Your task to perform on an android device: Search for "bose soundlink mini" on amazon.com, select the first entry, add it to the cart, then select checkout. Image 0: 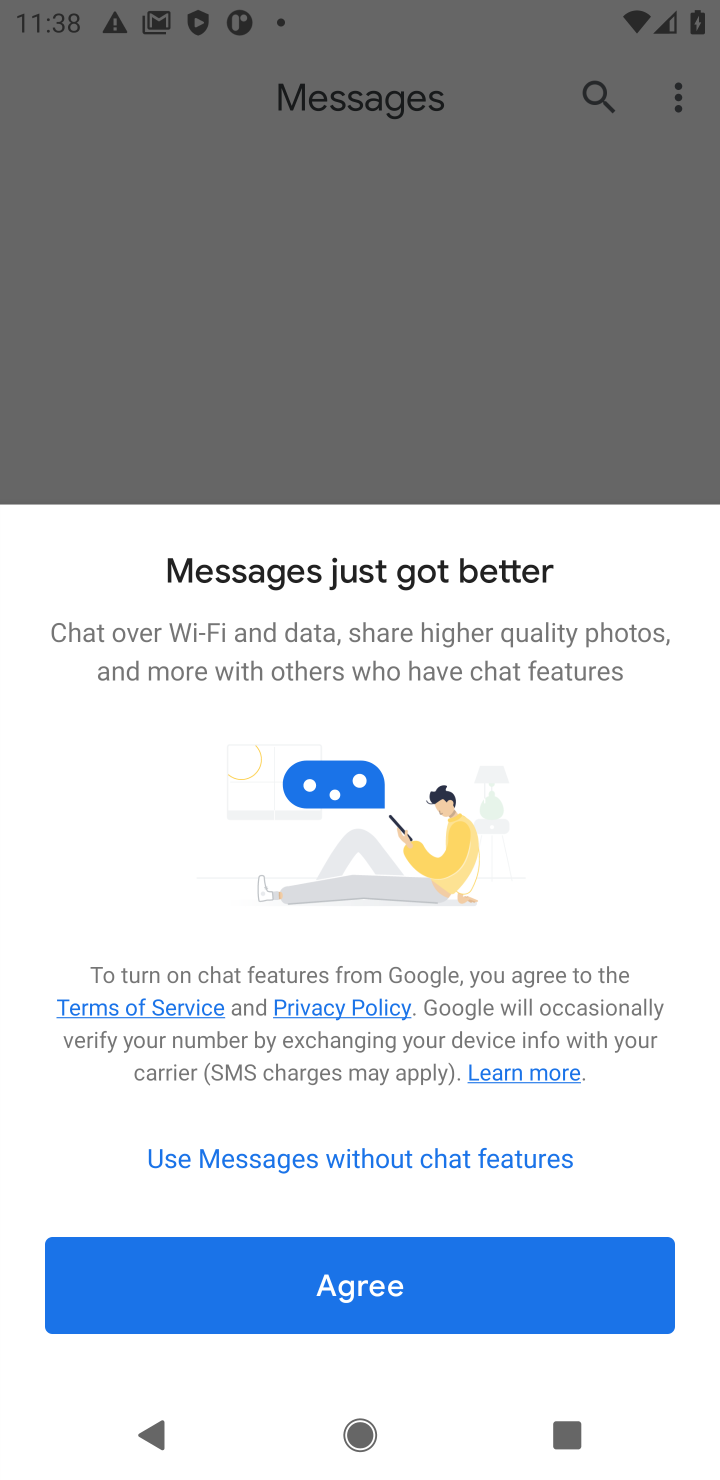
Step 0: press home button
Your task to perform on an android device: Search for "bose soundlink mini" on amazon.com, select the first entry, add it to the cart, then select checkout. Image 1: 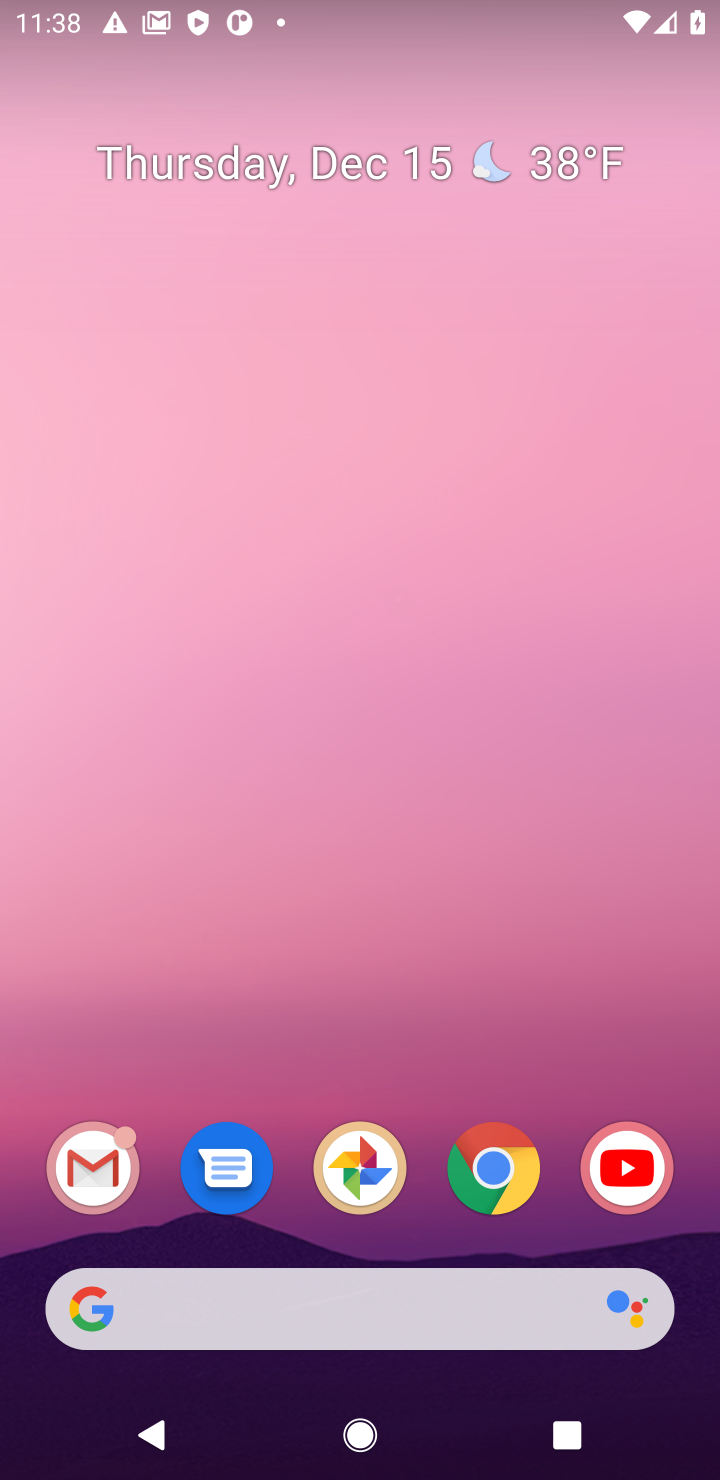
Step 1: click (483, 1169)
Your task to perform on an android device: Search for "bose soundlink mini" on amazon.com, select the first entry, add it to the cart, then select checkout. Image 2: 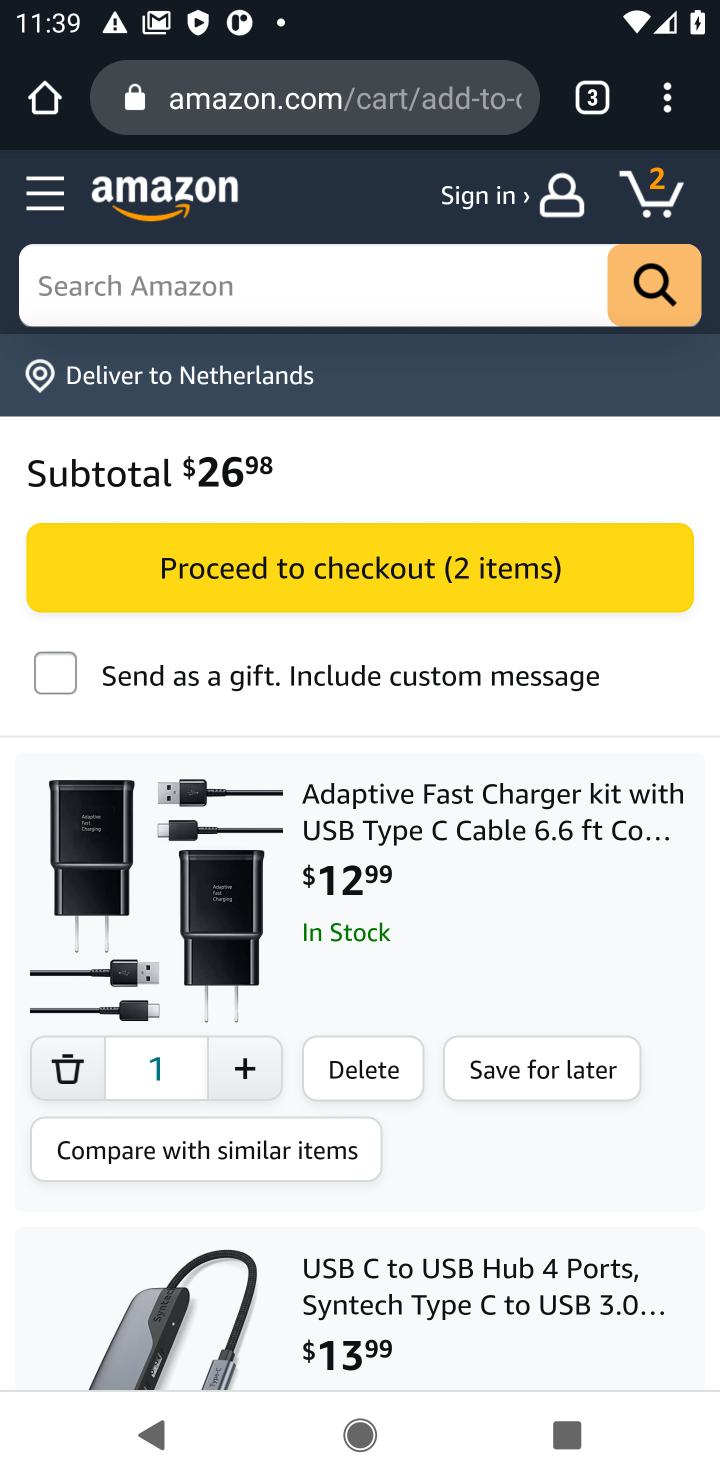
Step 2: click (118, 267)
Your task to perform on an android device: Search for "bose soundlink mini" on amazon.com, select the first entry, add it to the cart, then select checkout. Image 3: 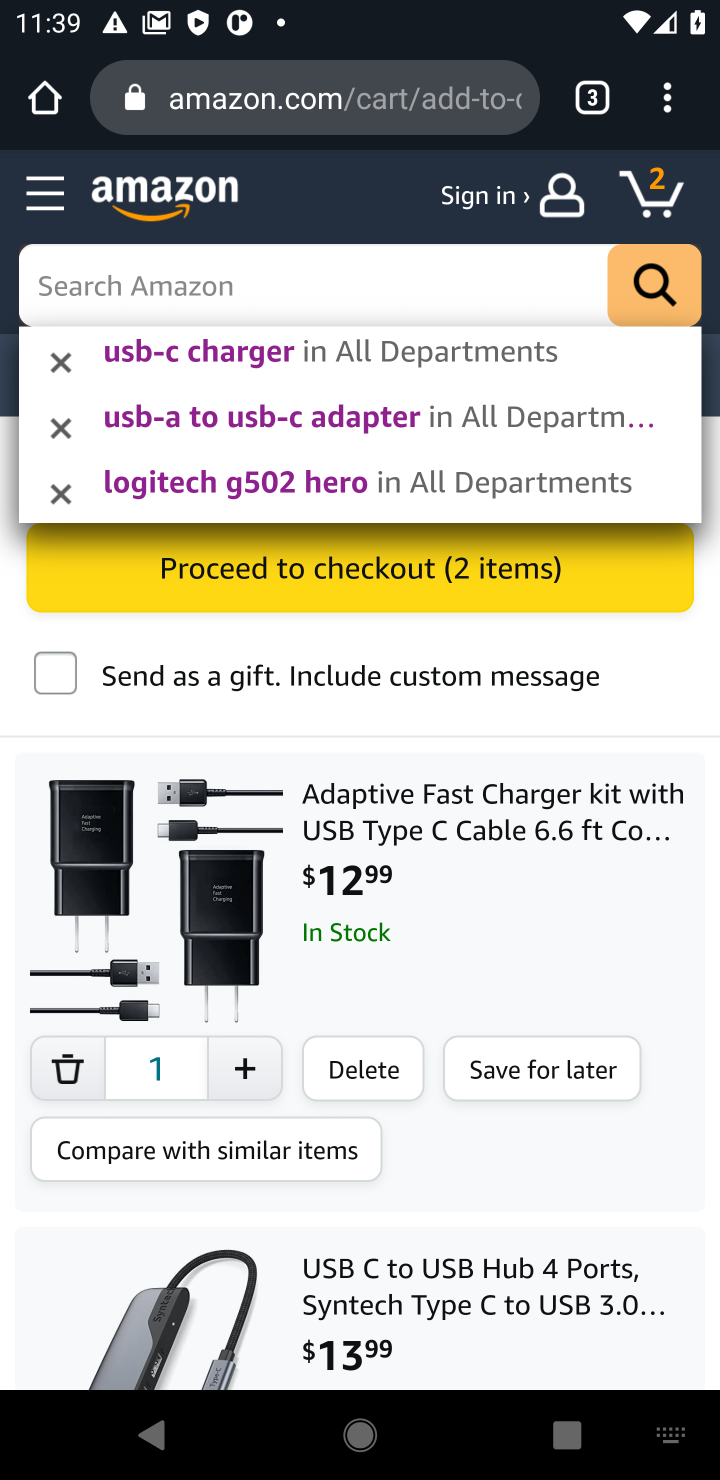
Step 3: type "bose soundlink mini"
Your task to perform on an android device: Search for "bose soundlink mini" on amazon.com, select the first entry, add it to the cart, then select checkout. Image 4: 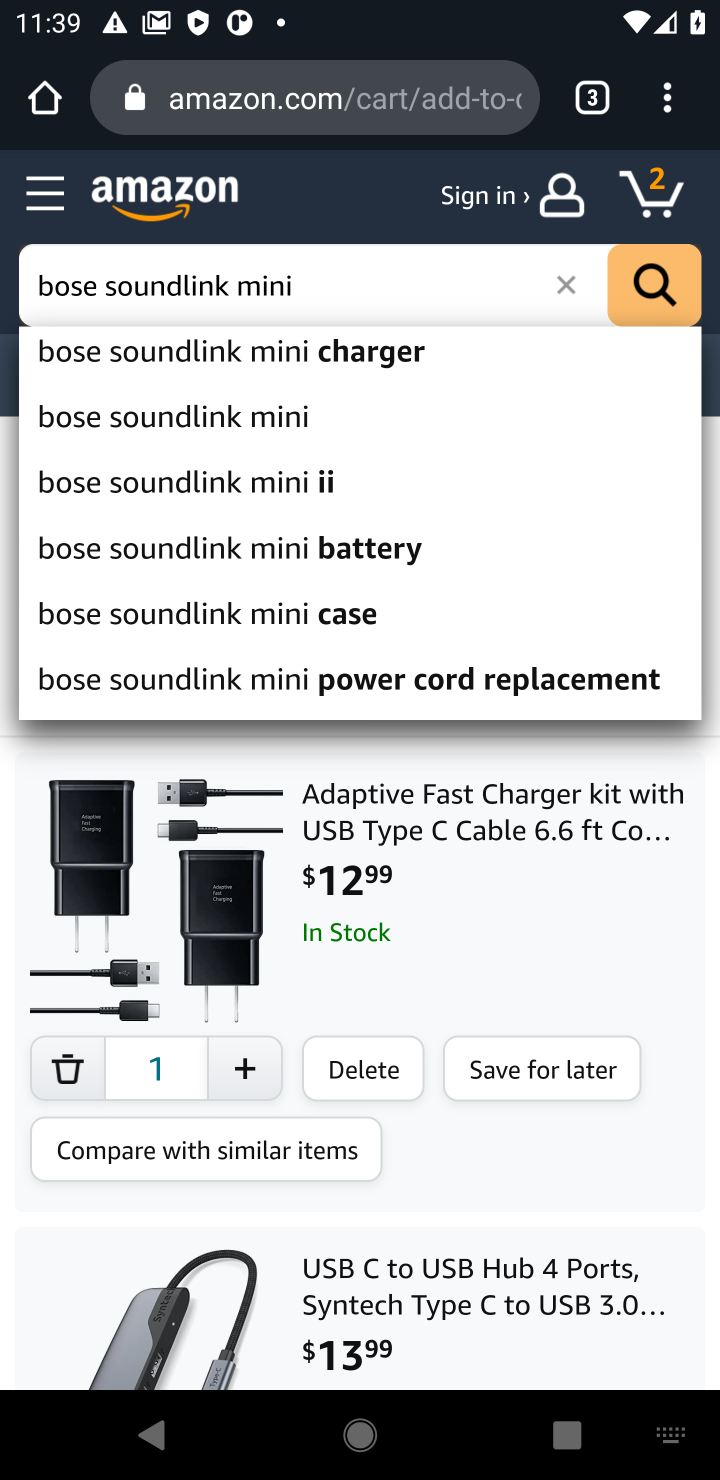
Step 4: click (257, 362)
Your task to perform on an android device: Search for "bose soundlink mini" on amazon.com, select the first entry, add it to the cart, then select checkout. Image 5: 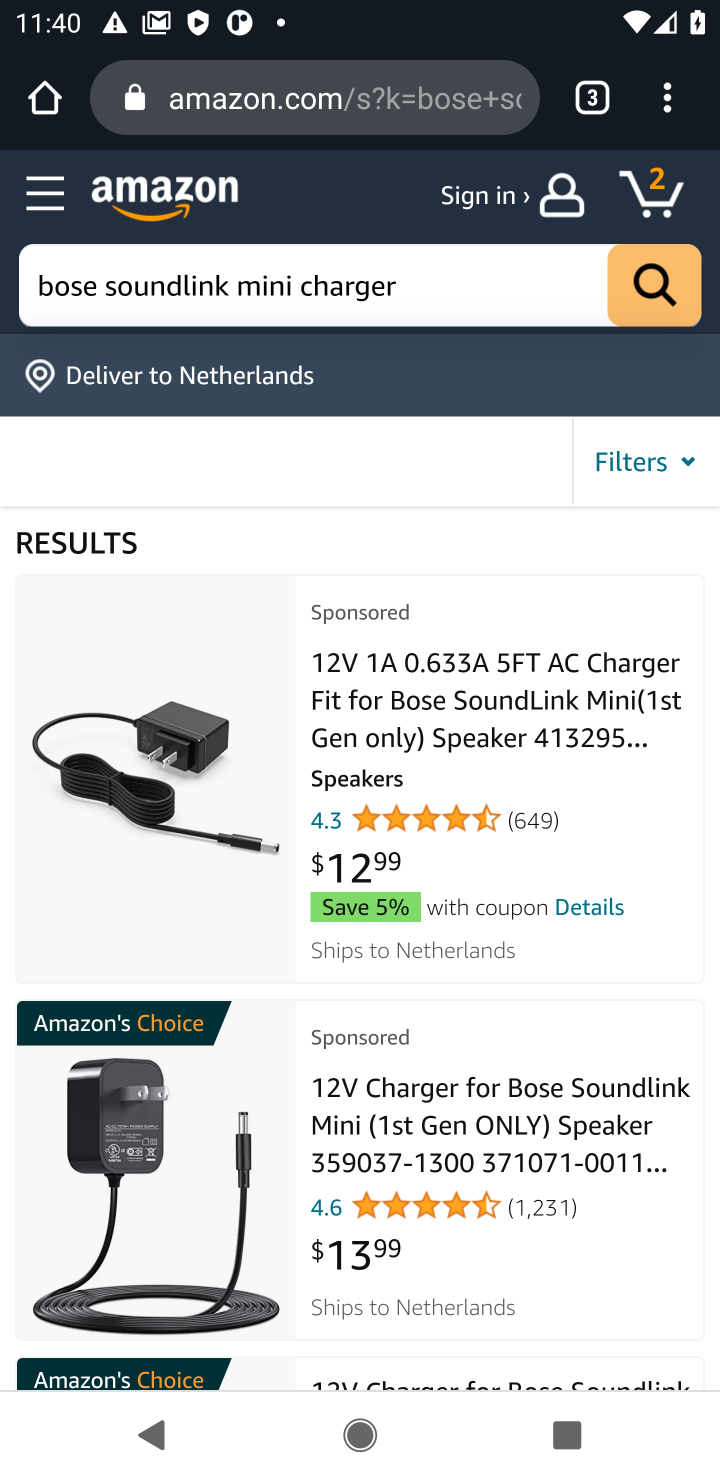
Step 5: click (542, 766)
Your task to perform on an android device: Search for "bose soundlink mini" on amazon.com, select the first entry, add it to the cart, then select checkout. Image 6: 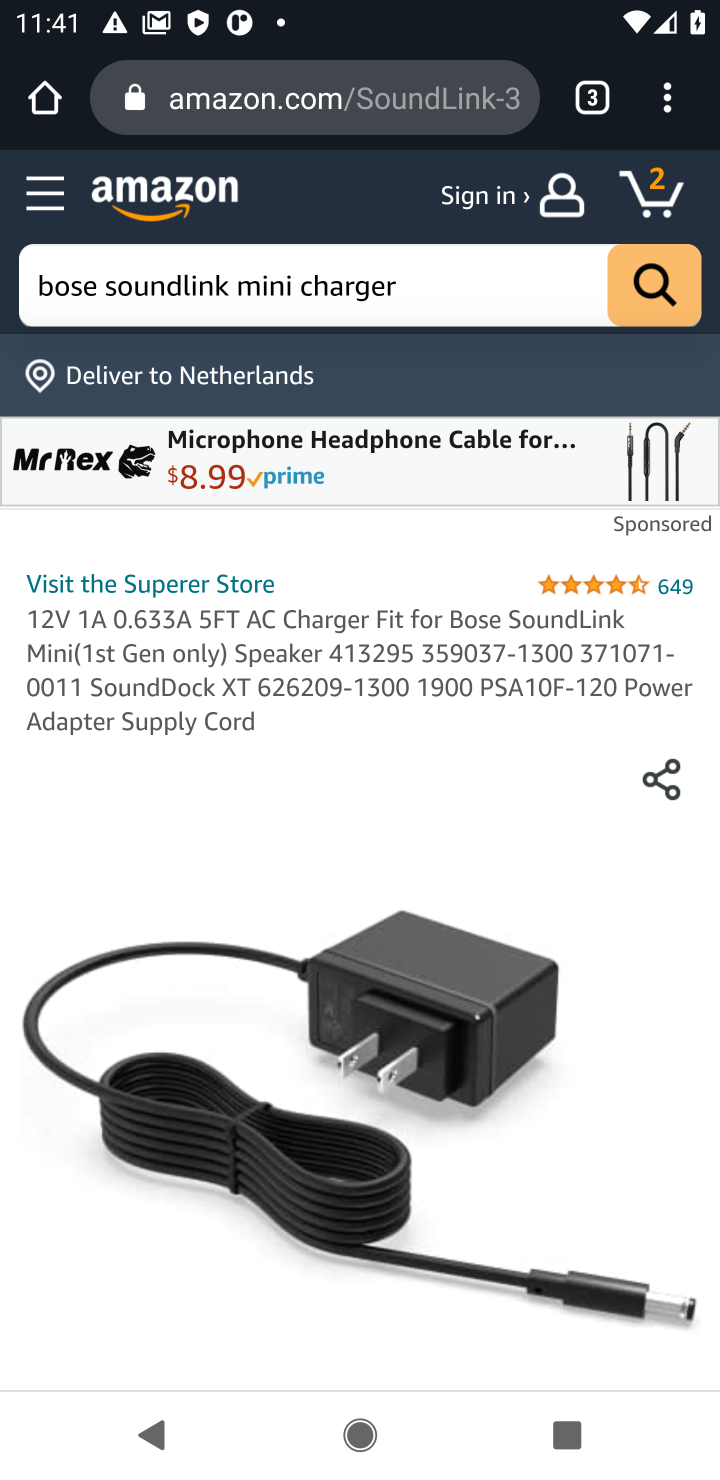
Step 6: drag from (493, 1271) to (443, 233)
Your task to perform on an android device: Search for "bose soundlink mini" on amazon.com, select the first entry, add it to the cart, then select checkout. Image 7: 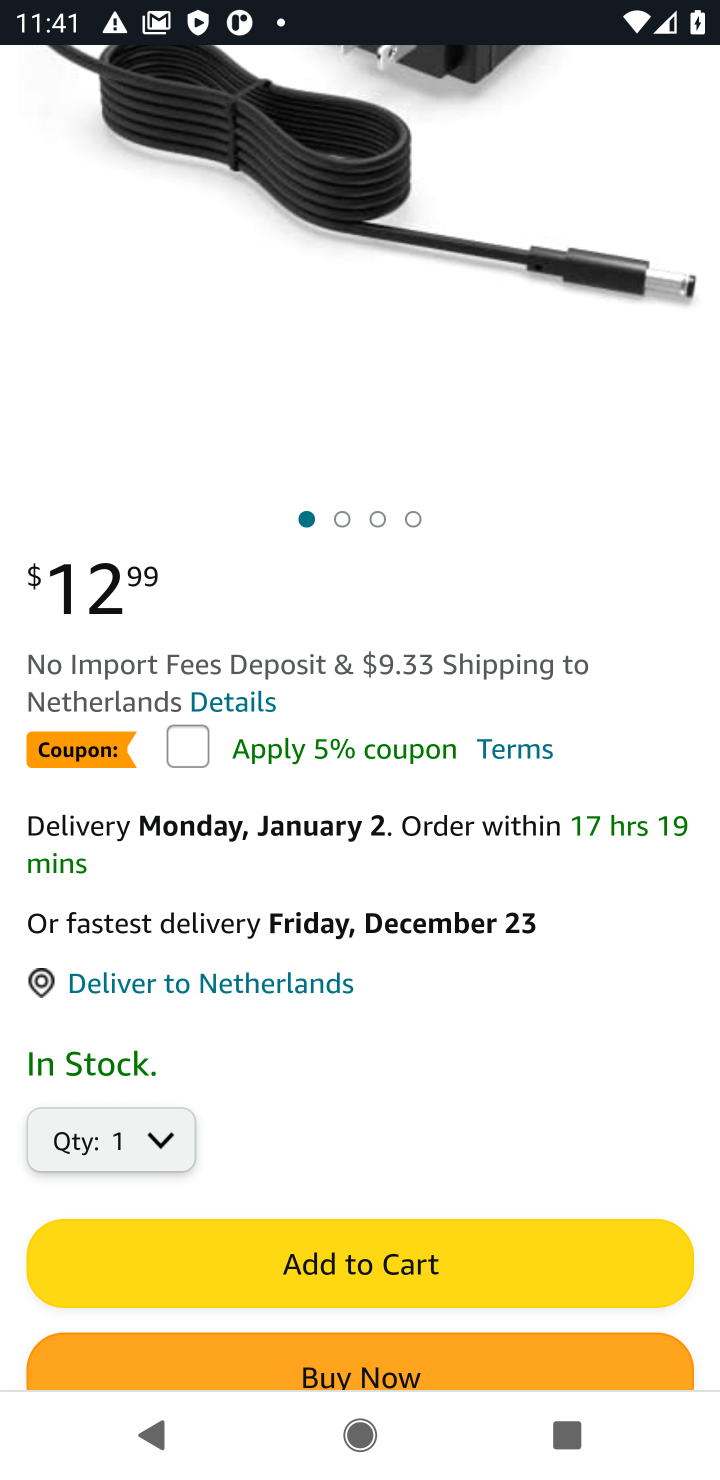
Step 7: click (396, 1265)
Your task to perform on an android device: Search for "bose soundlink mini" on amazon.com, select the first entry, add it to the cart, then select checkout. Image 8: 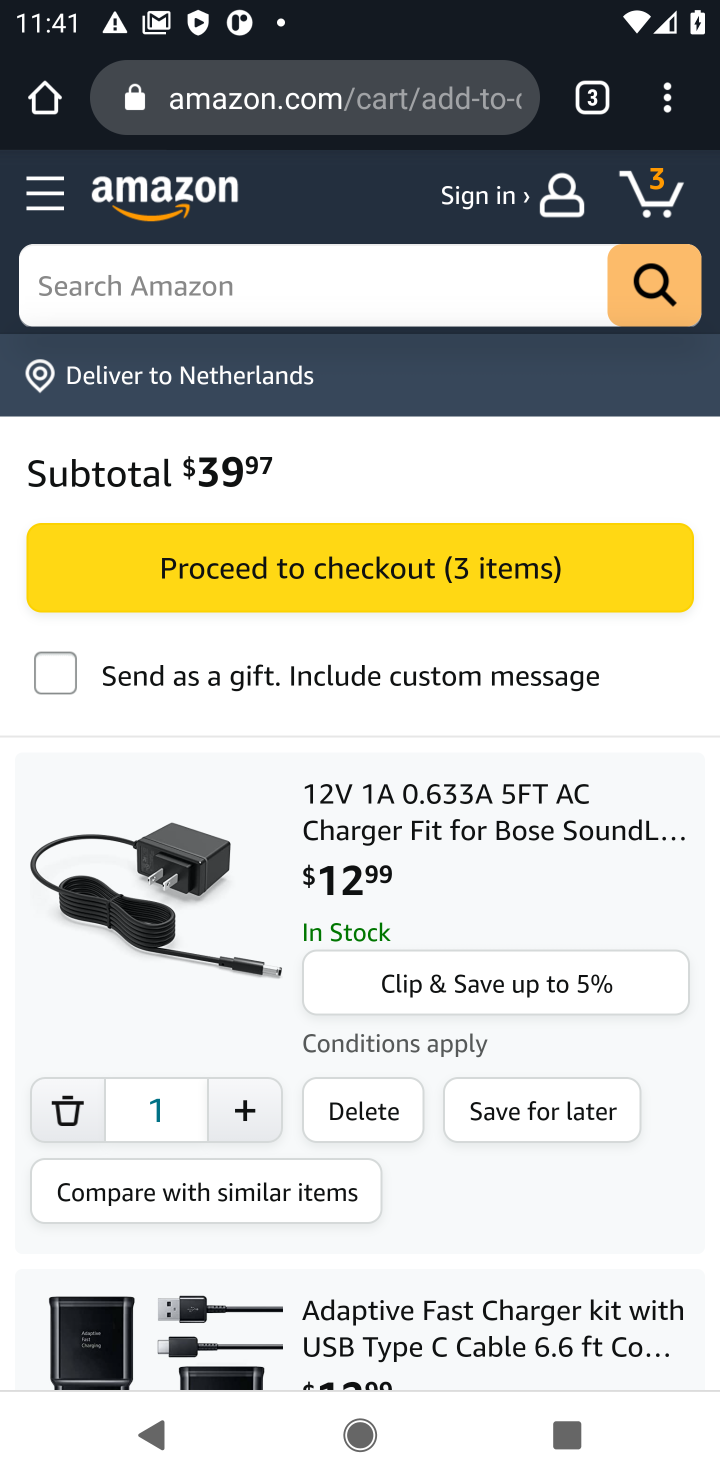
Step 8: click (385, 569)
Your task to perform on an android device: Search for "bose soundlink mini" on amazon.com, select the first entry, add it to the cart, then select checkout. Image 9: 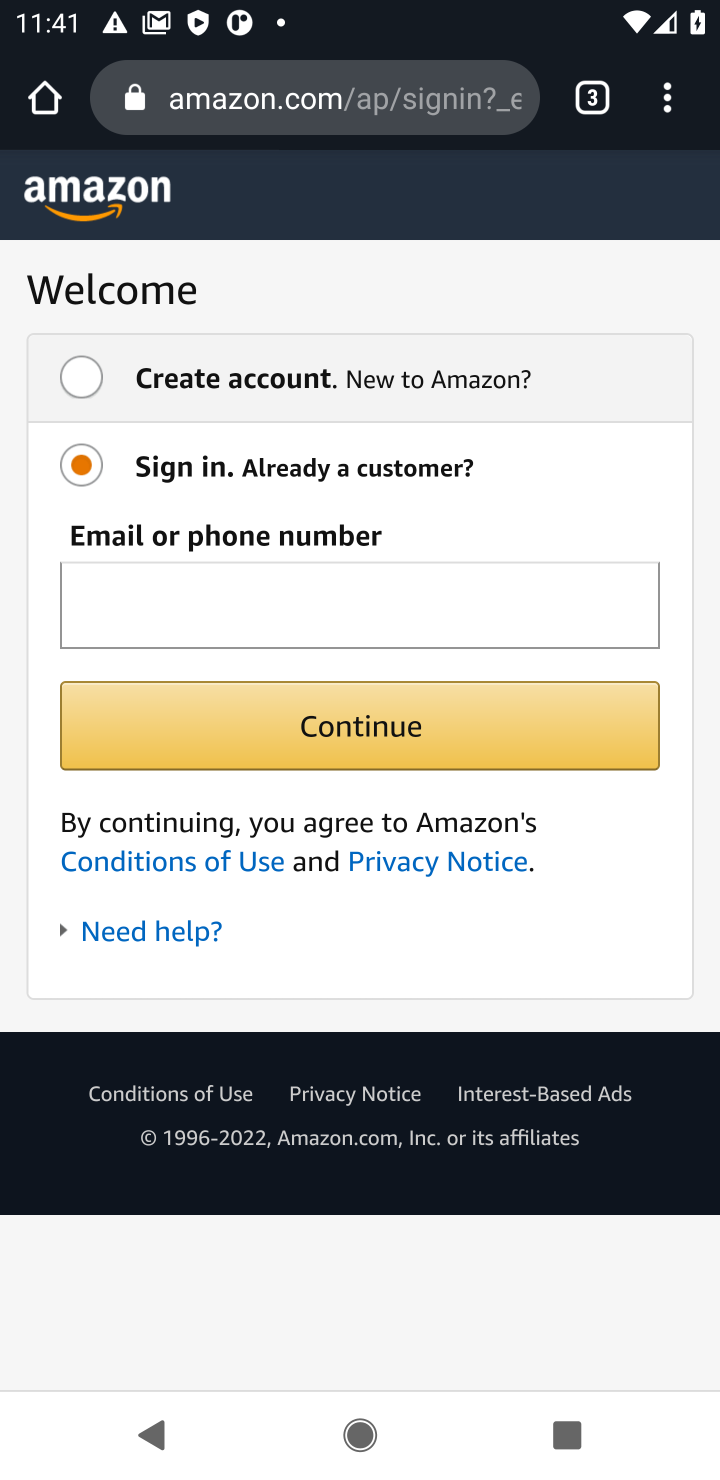
Step 9: task complete